Your task to perform on an android device: turn on sleep mode Image 0: 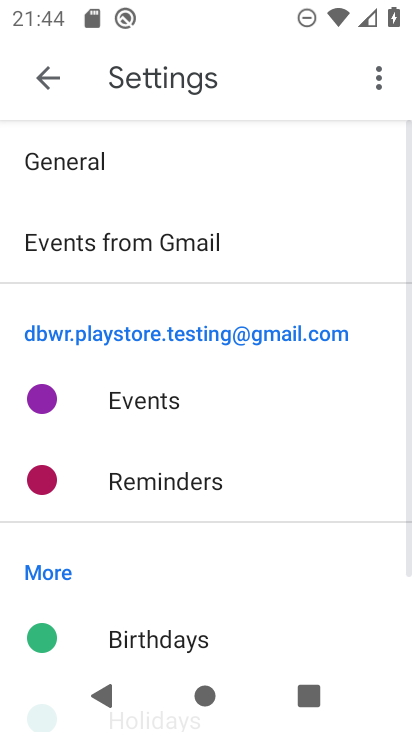
Step 0: press home button
Your task to perform on an android device: turn on sleep mode Image 1: 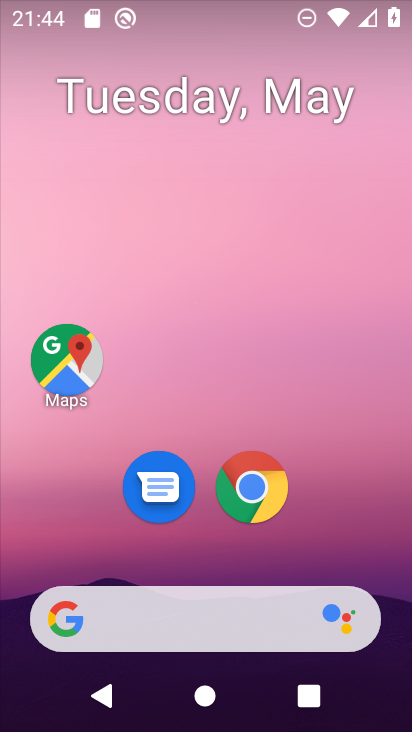
Step 1: drag from (163, 616) to (344, 120)
Your task to perform on an android device: turn on sleep mode Image 2: 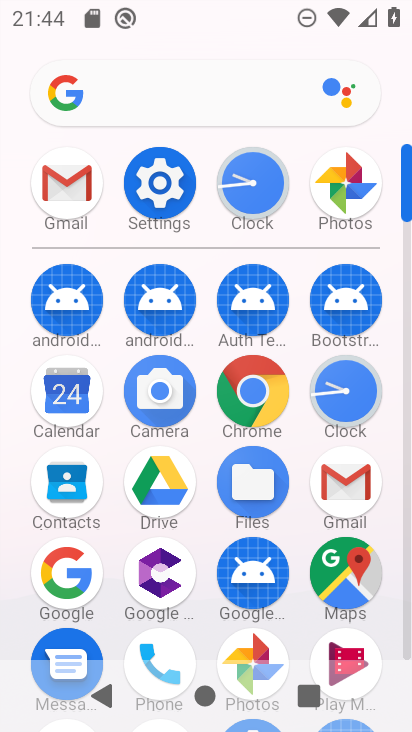
Step 2: click (162, 188)
Your task to perform on an android device: turn on sleep mode Image 3: 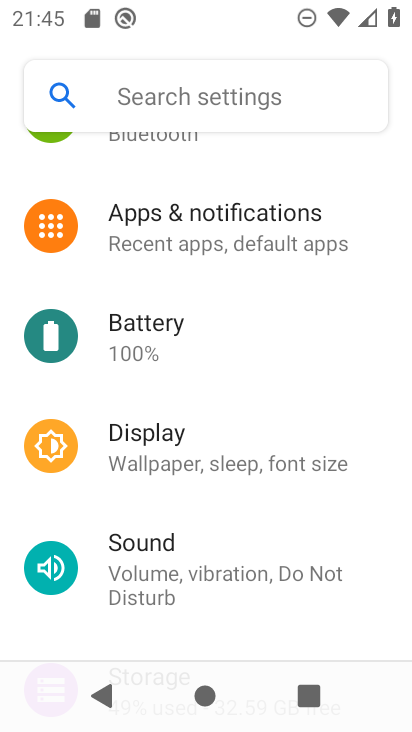
Step 3: click (202, 458)
Your task to perform on an android device: turn on sleep mode Image 4: 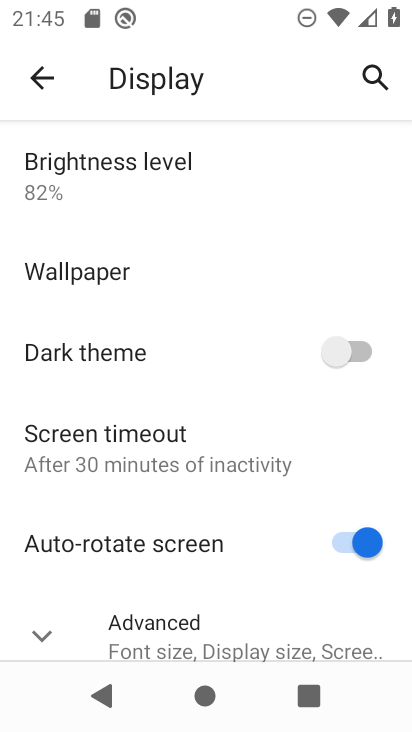
Step 4: task complete